Your task to perform on an android device: move an email to a new category in the gmail app Image 0: 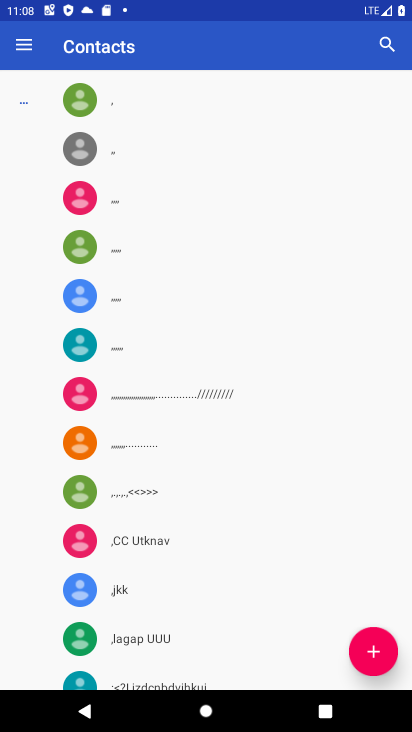
Step 0: press home button
Your task to perform on an android device: move an email to a new category in the gmail app Image 1: 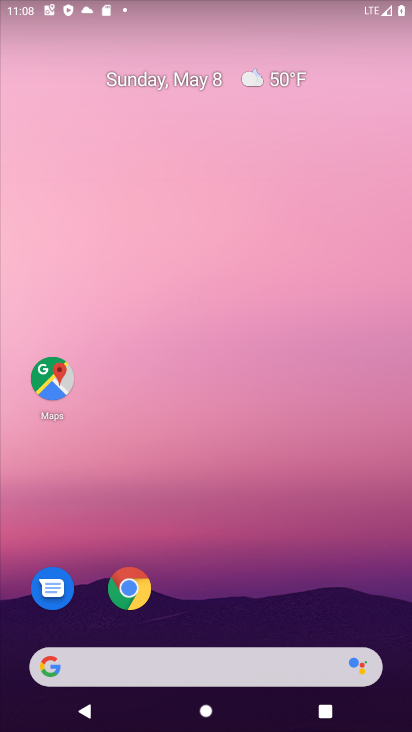
Step 1: drag from (252, 550) to (202, 95)
Your task to perform on an android device: move an email to a new category in the gmail app Image 2: 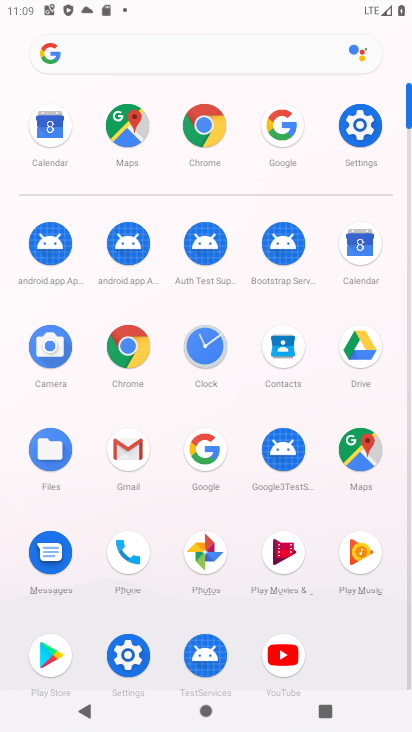
Step 2: click (125, 452)
Your task to perform on an android device: move an email to a new category in the gmail app Image 3: 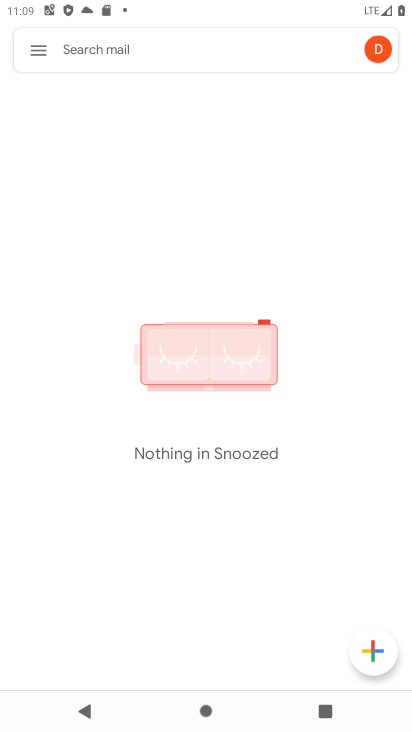
Step 3: click (31, 51)
Your task to perform on an android device: move an email to a new category in the gmail app Image 4: 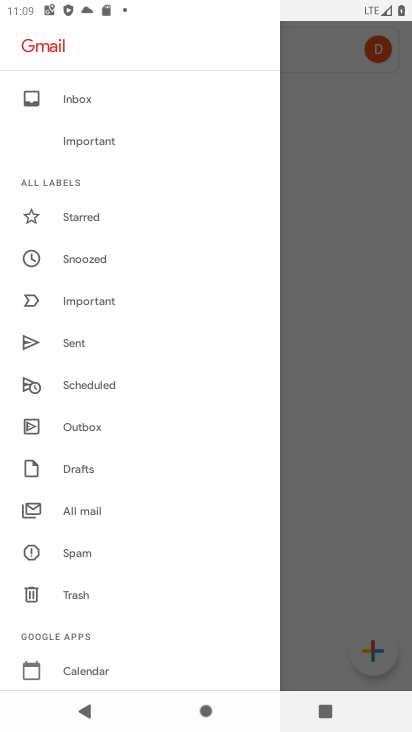
Step 4: click (111, 512)
Your task to perform on an android device: move an email to a new category in the gmail app Image 5: 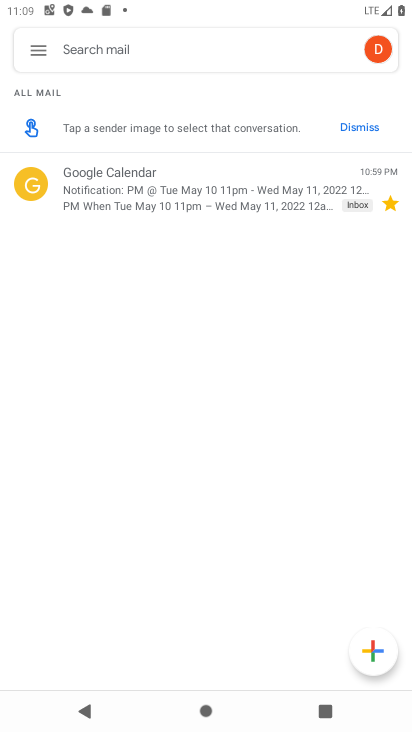
Step 5: click (156, 190)
Your task to perform on an android device: move an email to a new category in the gmail app Image 6: 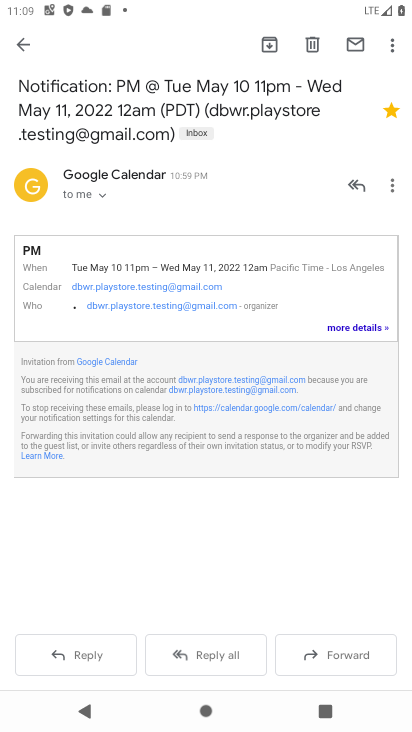
Step 6: click (392, 42)
Your task to perform on an android device: move an email to a new category in the gmail app Image 7: 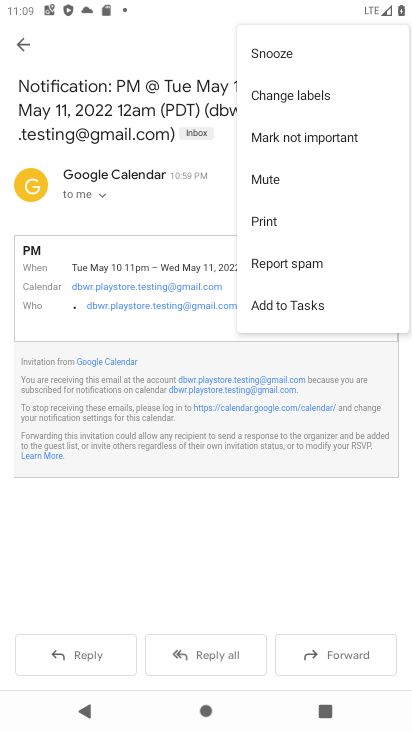
Step 7: click (277, 53)
Your task to perform on an android device: move an email to a new category in the gmail app Image 8: 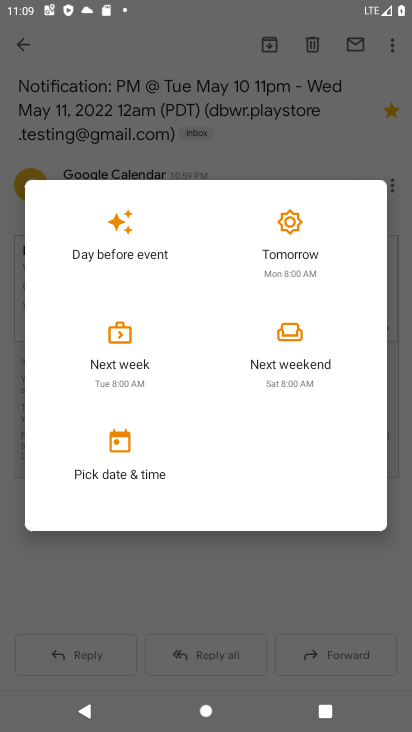
Step 8: click (125, 384)
Your task to perform on an android device: move an email to a new category in the gmail app Image 9: 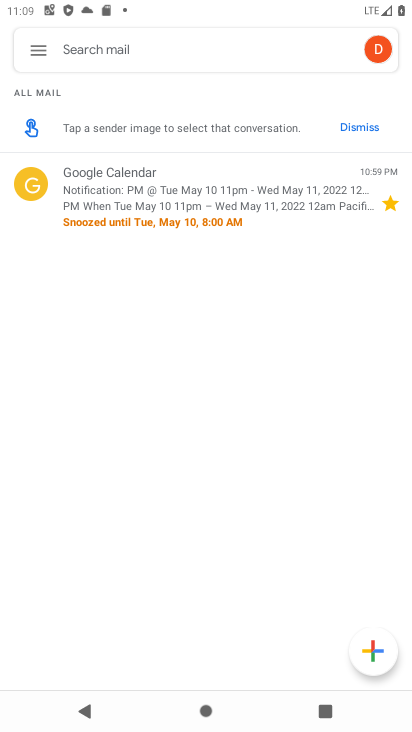
Step 9: task complete